Your task to perform on an android device: turn off translation in the chrome app Image 0: 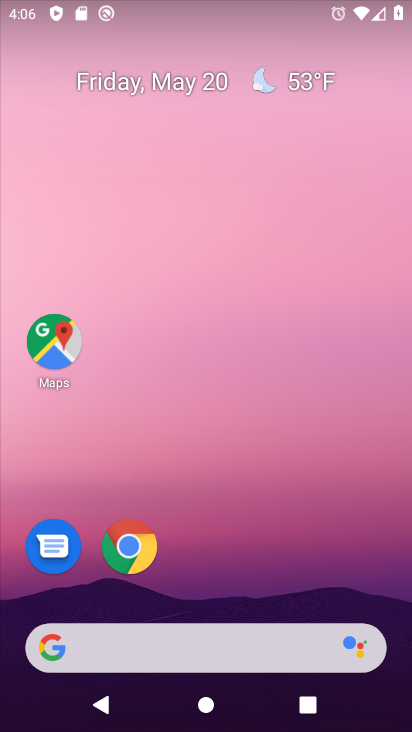
Step 0: click (125, 546)
Your task to perform on an android device: turn off translation in the chrome app Image 1: 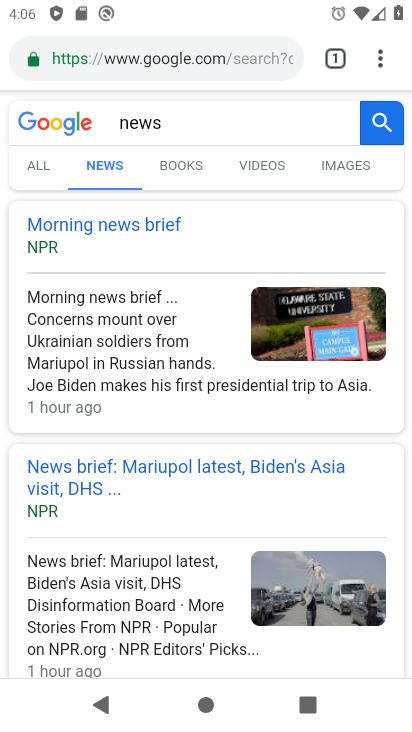
Step 1: drag from (379, 55) to (212, 552)
Your task to perform on an android device: turn off translation in the chrome app Image 2: 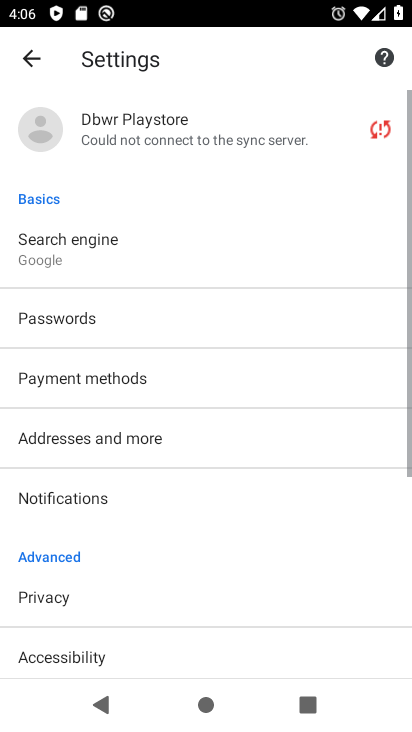
Step 2: drag from (192, 570) to (212, 75)
Your task to perform on an android device: turn off translation in the chrome app Image 3: 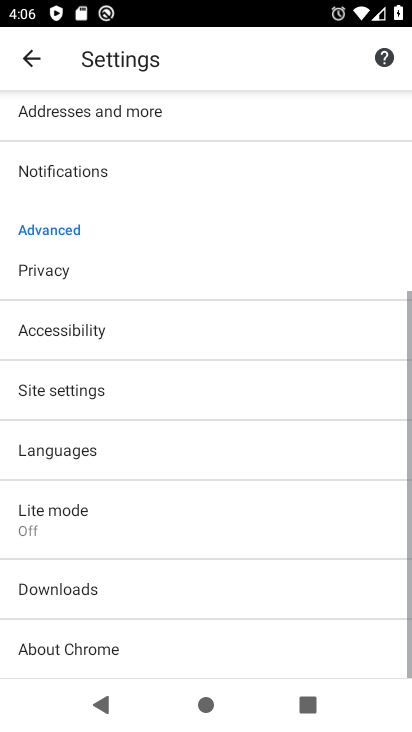
Step 3: click (99, 452)
Your task to perform on an android device: turn off translation in the chrome app Image 4: 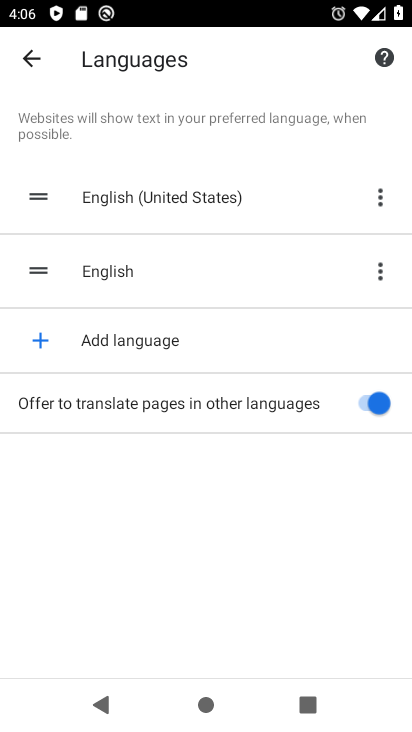
Step 4: click (377, 408)
Your task to perform on an android device: turn off translation in the chrome app Image 5: 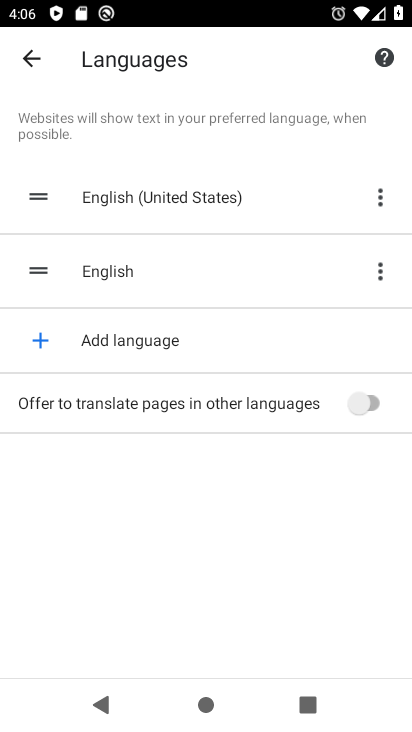
Step 5: task complete